Your task to perform on an android device: change the clock display to digital Image 0: 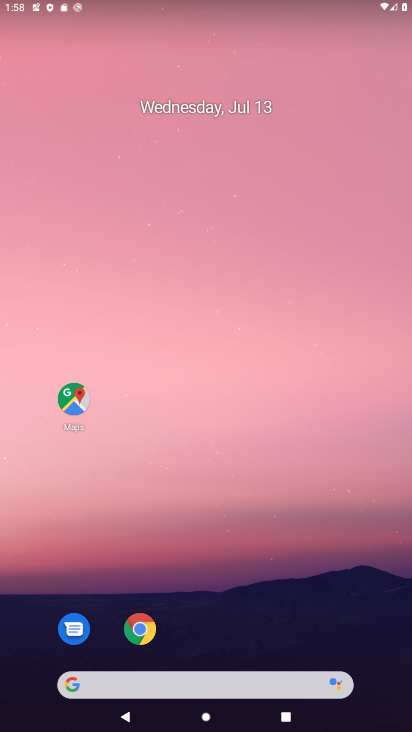
Step 0: drag from (188, 685) to (255, 136)
Your task to perform on an android device: change the clock display to digital Image 1: 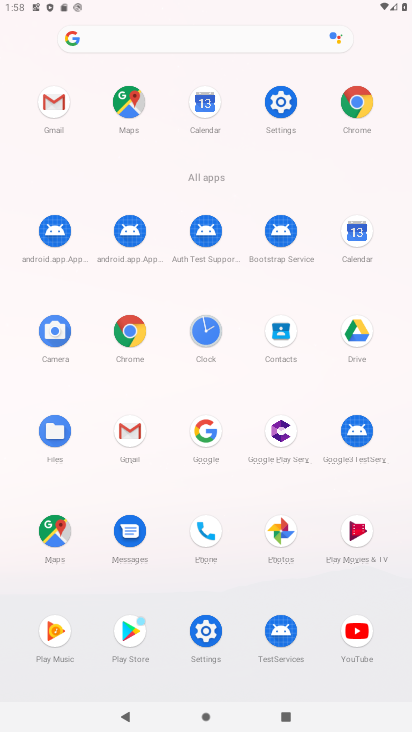
Step 1: click (205, 330)
Your task to perform on an android device: change the clock display to digital Image 2: 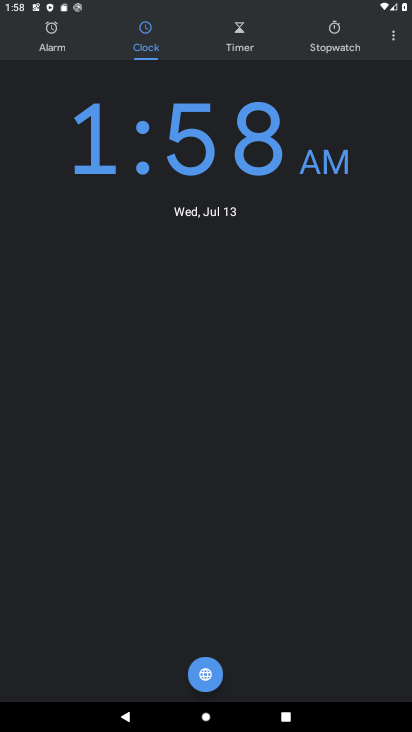
Step 2: click (394, 37)
Your task to perform on an android device: change the clock display to digital Image 3: 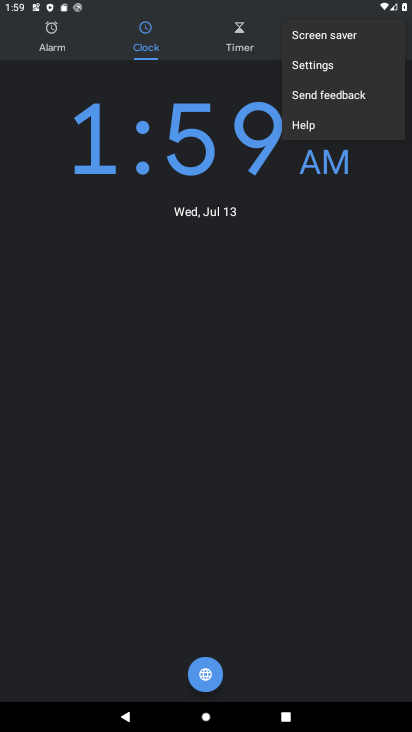
Step 3: click (322, 63)
Your task to perform on an android device: change the clock display to digital Image 4: 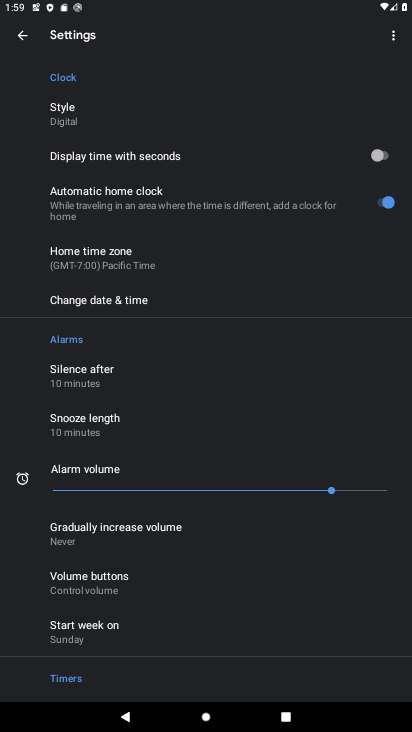
Step 4: click (79, 112)
Your task to perform on an android device: change the clock display to digital Image 5: 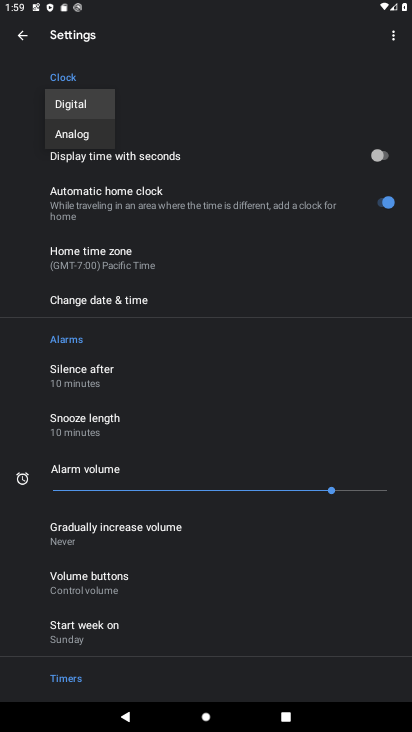
Step 5: click (79, 112)
Your task to perform on an android device: change the clock display to digital Image 6: 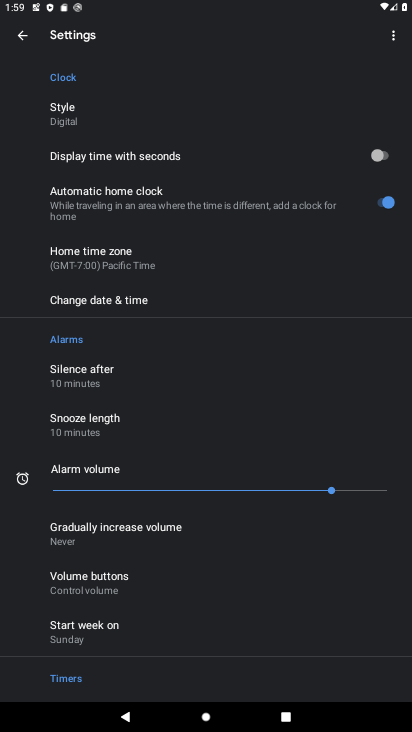
Step 6: task complete